Your task to perform on an android device: Open Youtube and go to "Your channel" Image 0: 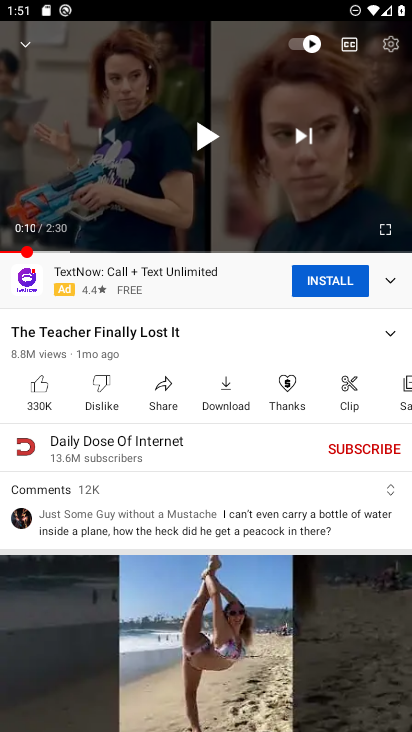
Step 0: press home button
Your task to perform on an android device: Open Youtube and go to "Your channel" Image 1: 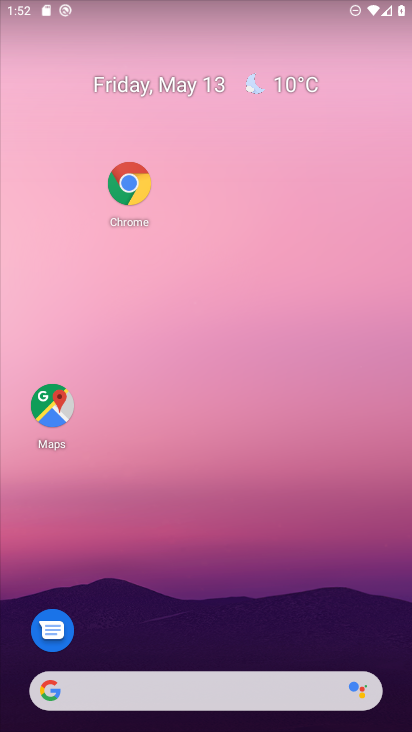
Step 1: drag from (193, 688) to (214, 133)
Your task to perform on an android device: Open Youtube and go to "Your channel" Image 2: 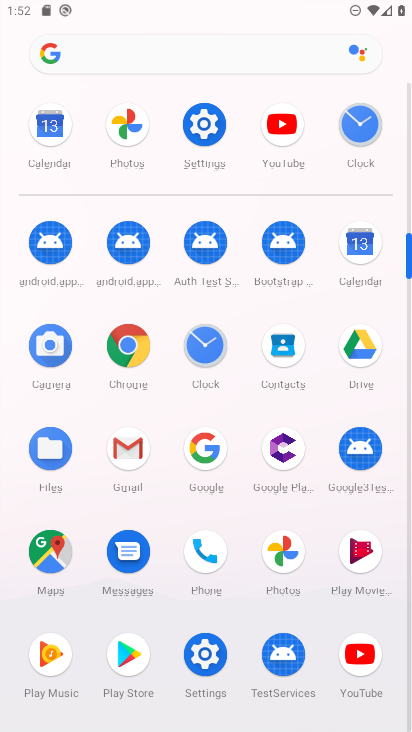
Step 2: click (267, 144)
Your task to perform on an android device: Open Youtube and go to "Your channel" Image 3: 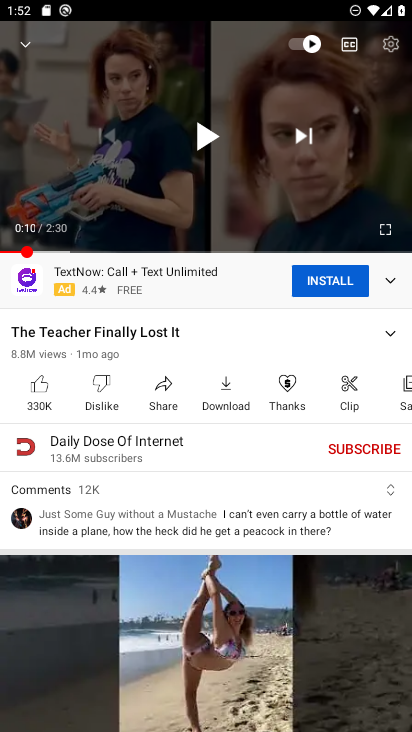
Step 3: drag from (149, 190) to (261, 611)
Your task to perform on an android device: Open Youtube and go to "Your channel" Image 4: 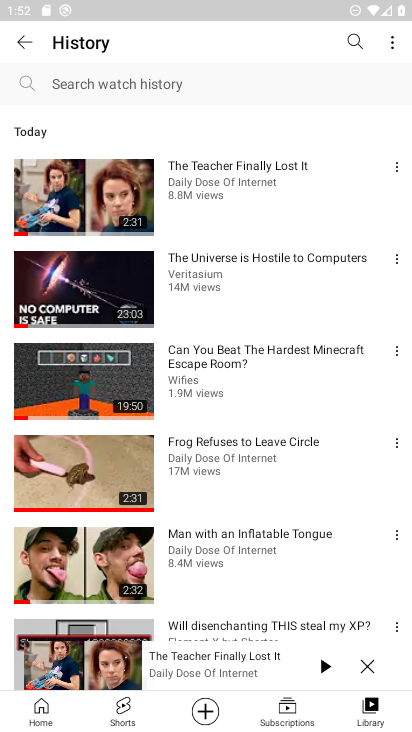
Step 4: click (11, 36)
Your task to perform on an android device: Open Youtube and go to "Your channel" Image 5: 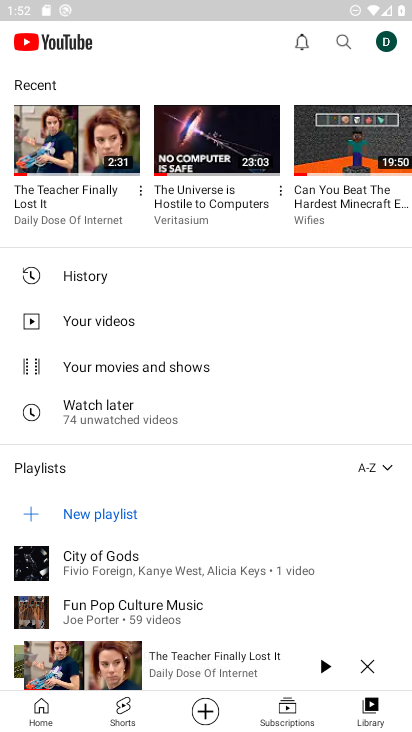
Step 5: click (376, 40)
Your task to perform on an android device: Open Youtube and go to "Your channel" Image 6: 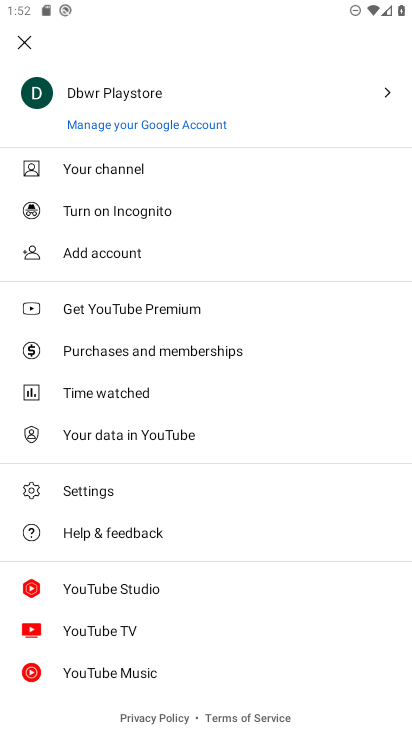
Step 6: click (129, 175)
Your task to perform on an android device: Open Youtube and go to "Your channel" Image 7: 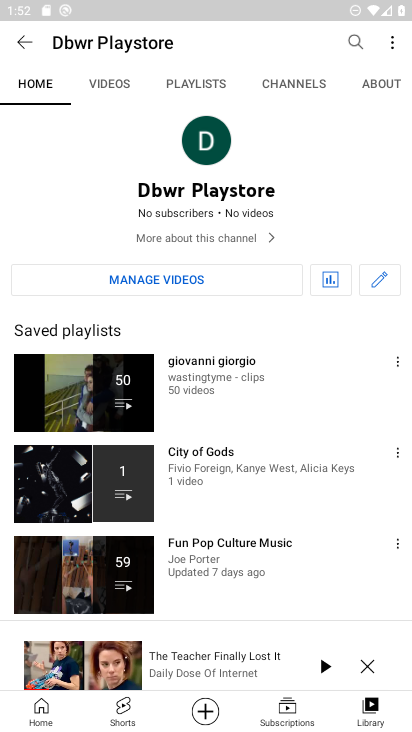
Step 7: task complete